Your task to perform on an android device: toggle wifi Image 0: 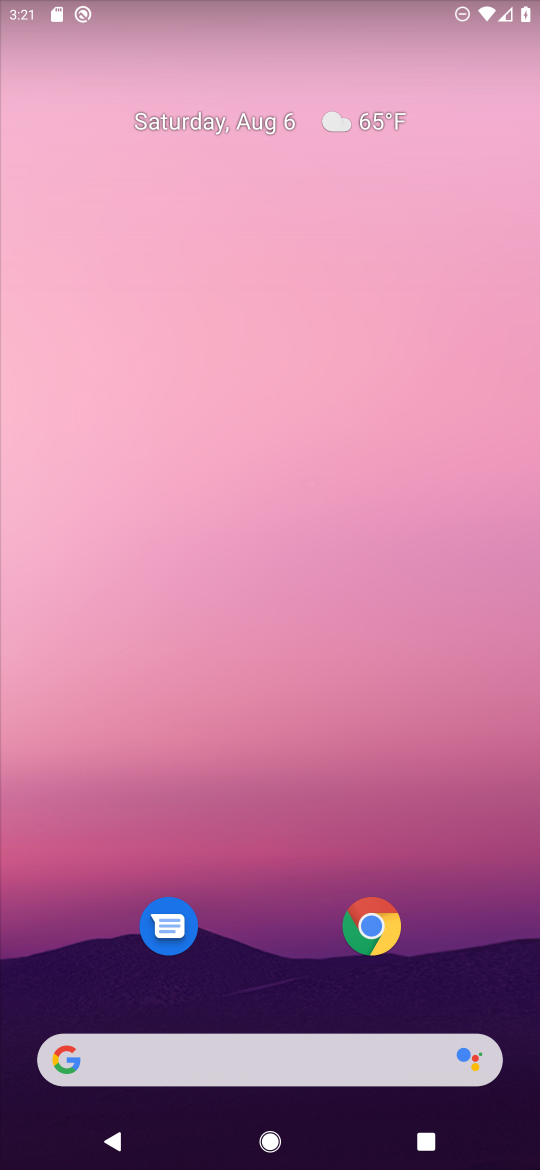
Step 0: drag from (267, 895) to (270, 228)
Your task to perform on an android device: toggle wifi Image 1: 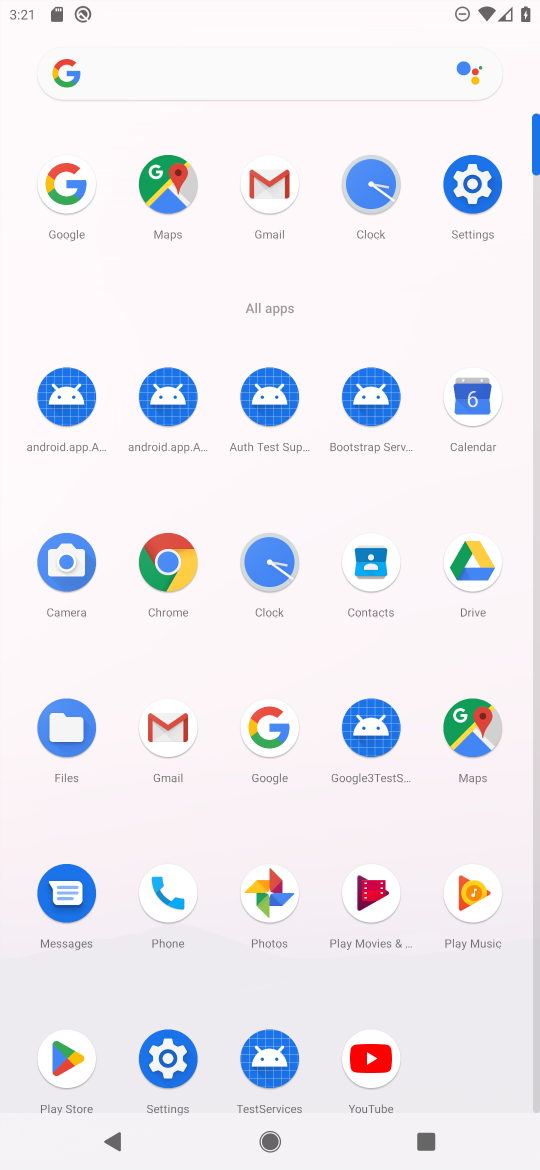
Step 1: click (456, 189)
Your task to perform on an android device: toggle wifi Image 2: 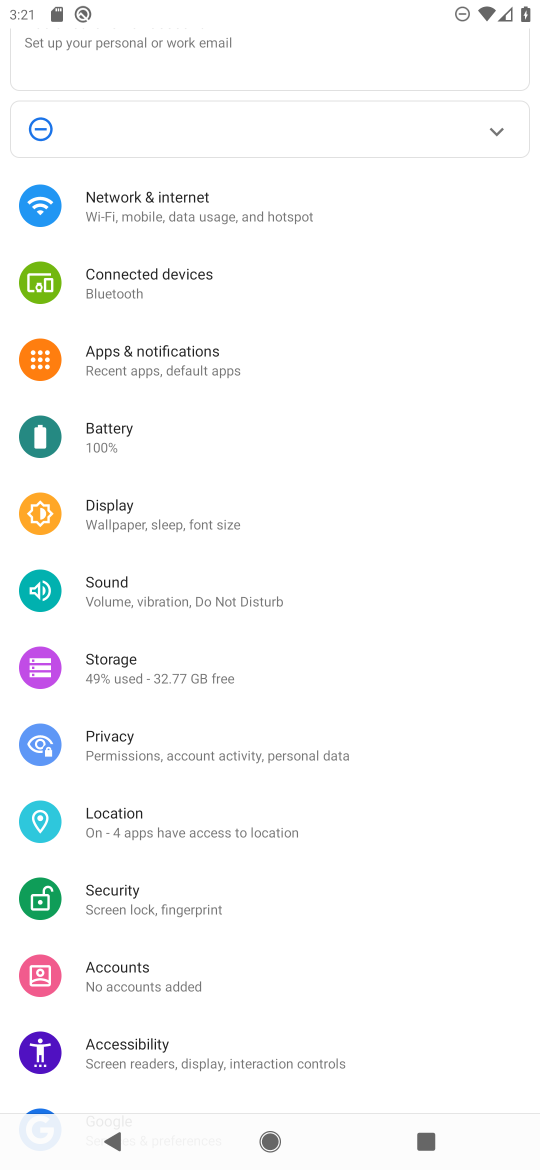
Step 2: click (134, 211)
Your task to perform on an android device: toggle wifi Image 3: 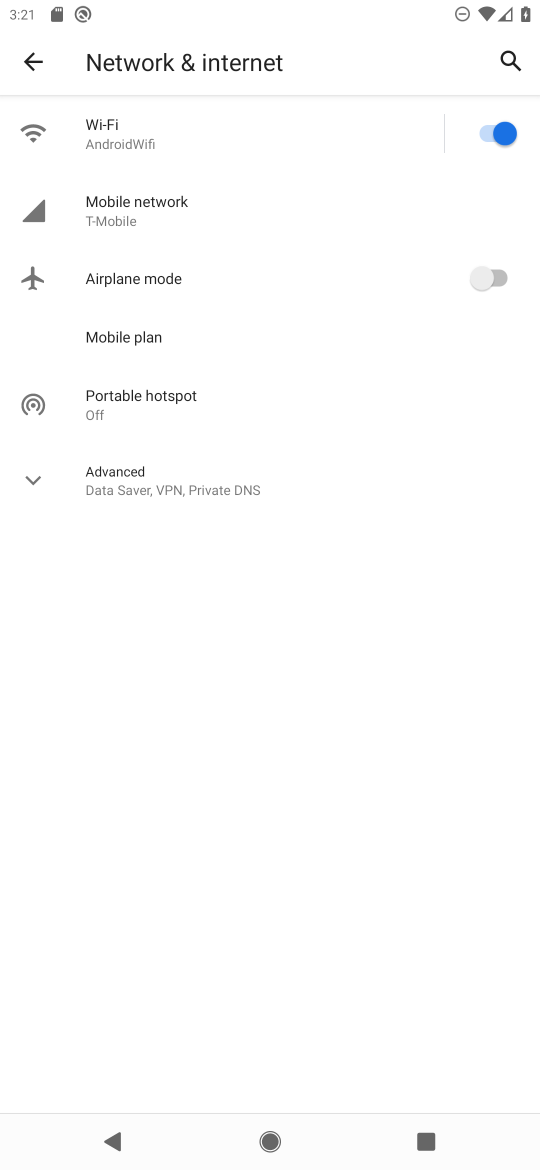
Step 3: click (470, 134)
Your task to perform on an android device: toggle wifi Image 4: 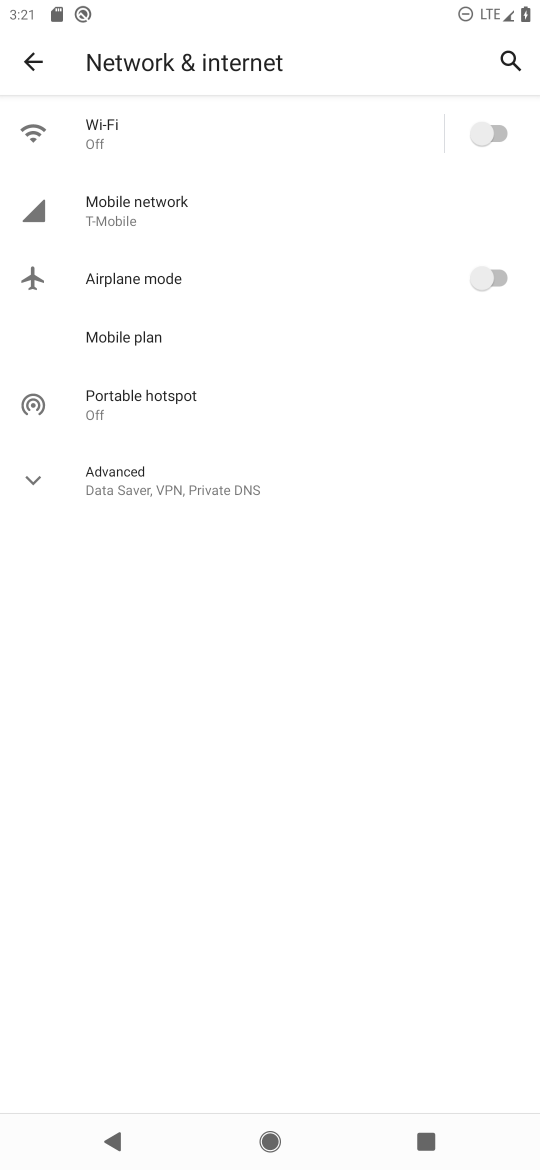
Step 4: task complete